Your task to perform on an android device: Go to Android settings Image 0: 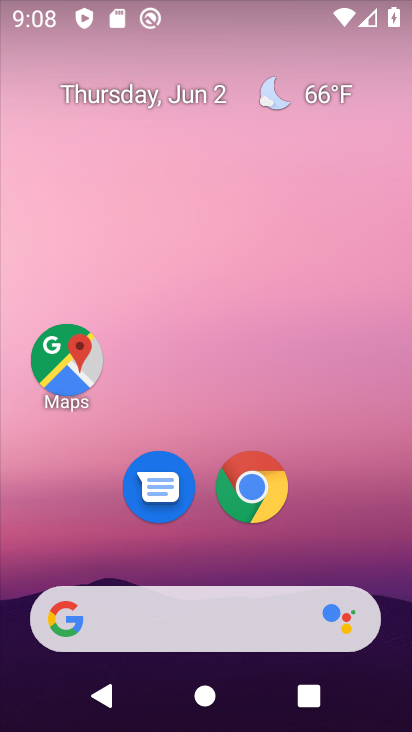
Step 0: drag from (243, 718) to (248, 40)
Your task to perform on an android device: Go to Android settings Image 1: 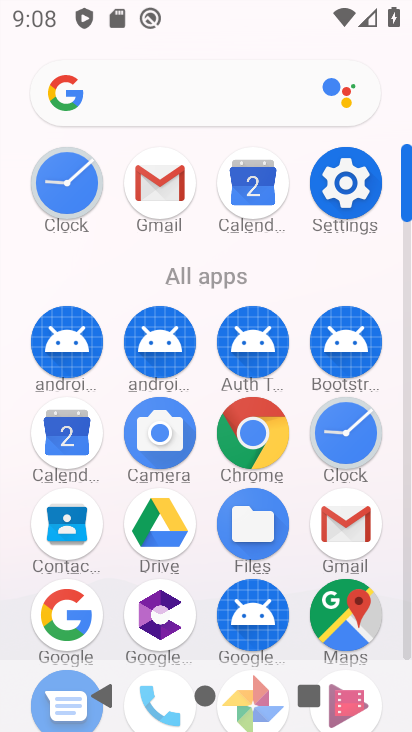
Step 1: click (342, 186)
Your task to perform on an android device: Go to Android settings Image 2: 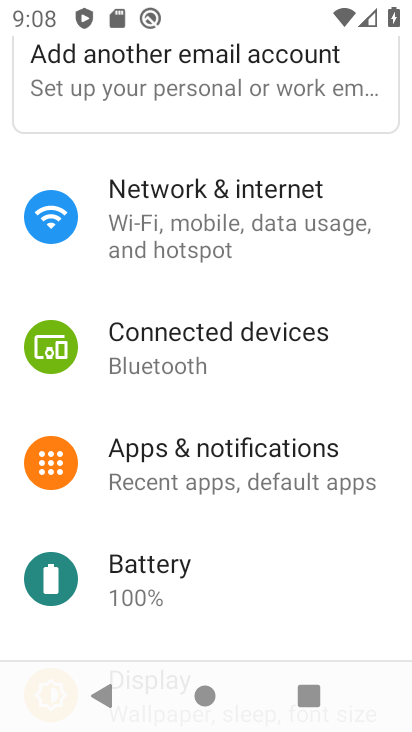
Step 2: task complete